Your task to perform on an android device: Search for vegetarian restaurants on Maps Image 0: 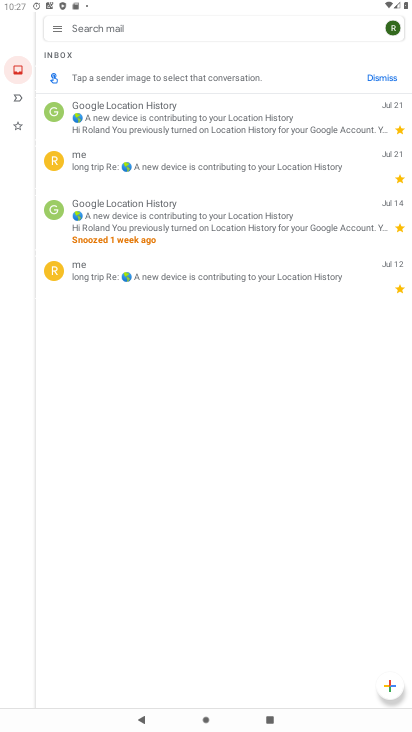
Step 0: drag from (179, 510) to (192, 337)
Your task to perform on an android device: Search for vegetarian restaurants on Maps Image 1: 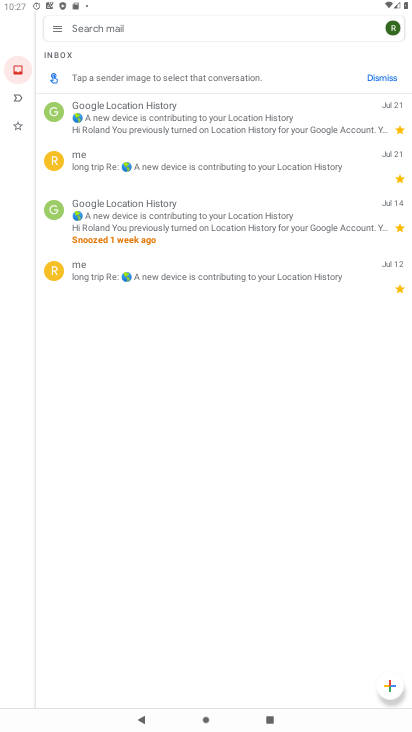
Step 1: press home button
Your task to perform on an android device: Search for vegetarian restaurants on Maps Image 2: 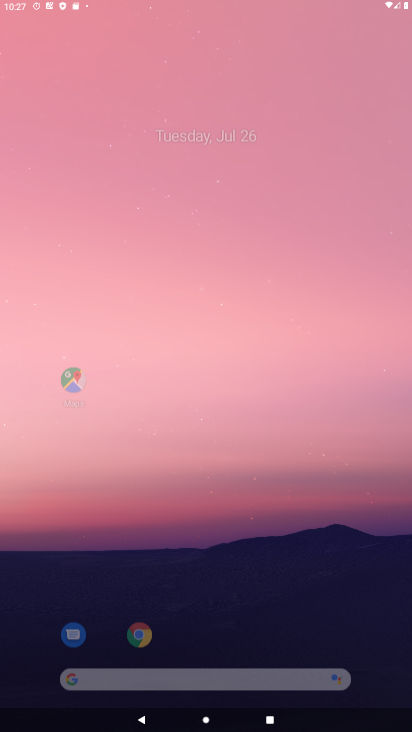
Step 2: drag from (220, 185) to (230, 54)
Your task to perform on an android device: Search for vegetarian restaurants on Maps Image 3: 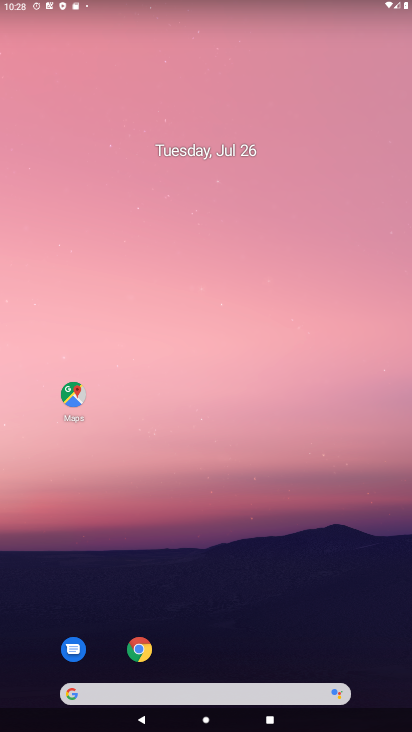
Step 3: click (71, 383)
Your task to perform on an android device: Search for vegetarian restaurants on Maps Image 4: 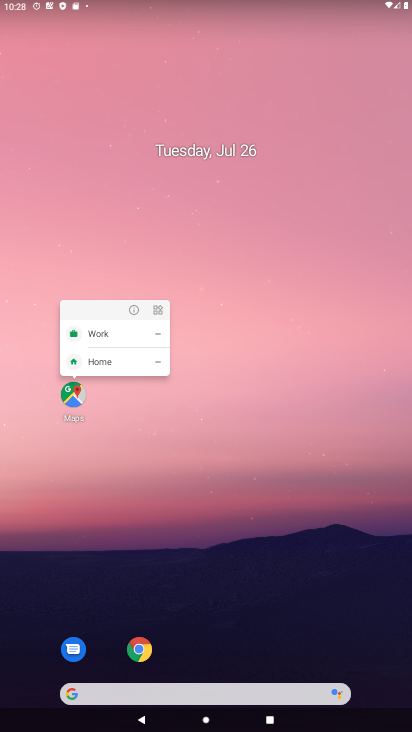
Step 4: click (133, 311)
Your task to perform on an android device: Search for vegetarian restaurants on Maps Image 5: 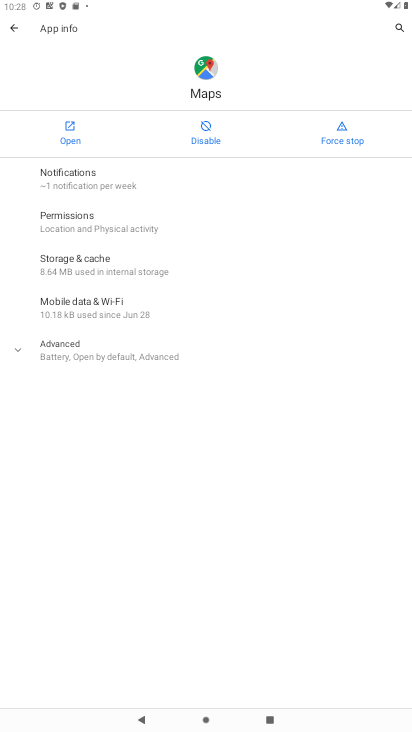
Step 5: click (64, 133)
Your task to perform on an android device: Search for vegetarian restaurants on Maps Image 6: 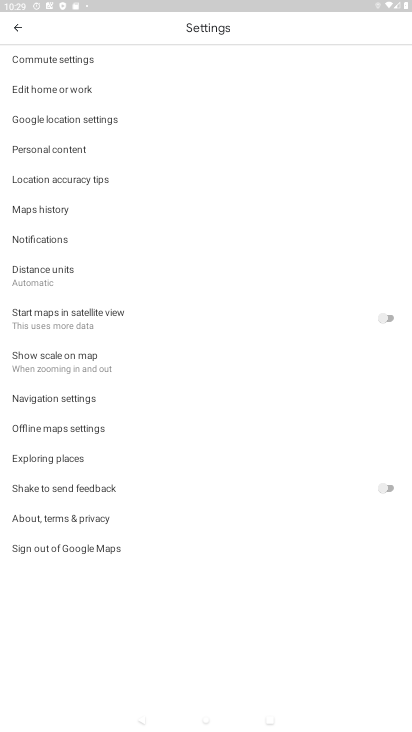
Step 6: press home button
Your task to perform on an android device: Search for vegetarian restaurants on Maps Image 7: 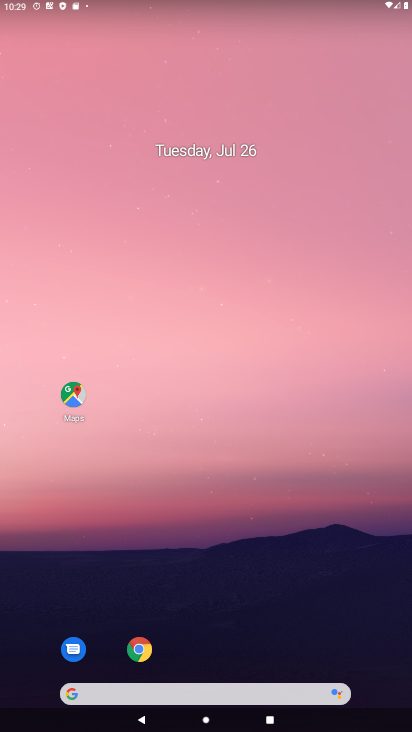
Step 7: drag from (199, 656) to (249, 300)
Your task to perform on an android device: Search for vegetarian restaurants on Maps Image 8: 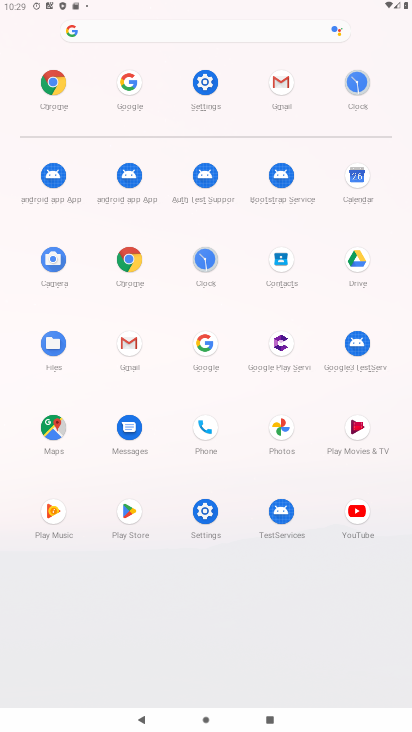
Step 8: click (46, 433)
Your task to perform on an android device: Search for vegetarian restaurants on Maps Image 9: 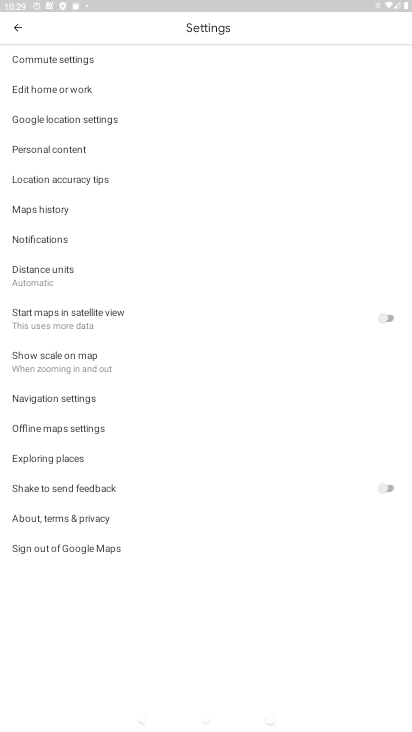
Step 9: drag from (193, 544) to (209, 307)
Your task to perform on an android device: Search for vegetarian restaurants on Maps Image 10: 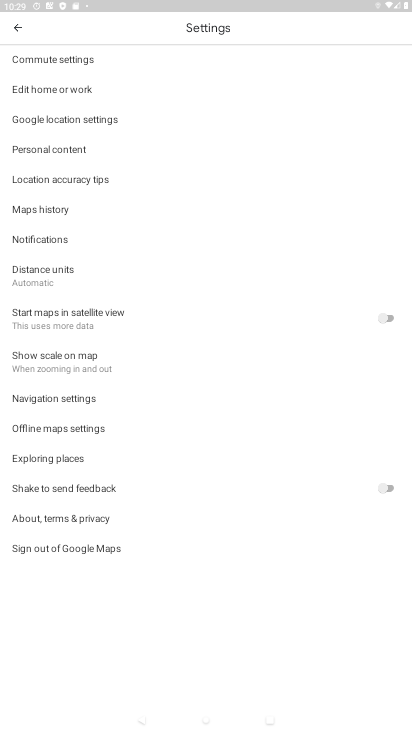
Step 10: drag from (156, 98) to (156, 528)
Your task to perform on an android device: Search for vegetarian restaurants on Maps Image 11: 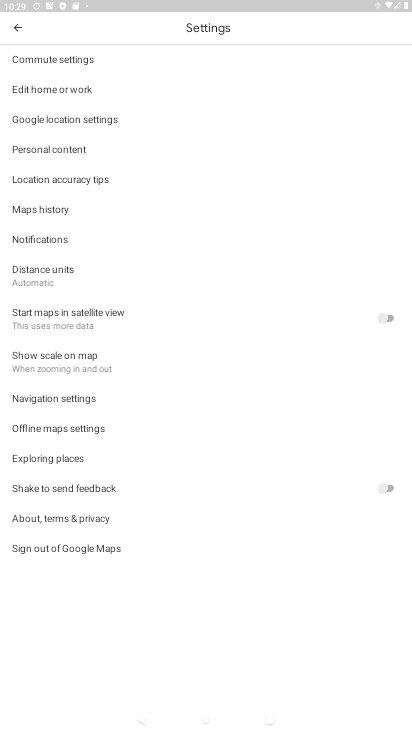
Step 11: drag from (188, 583) to (204, 260)
Your task to perform on an android device: Search for vegetarian restaurants on Maps Image 12: 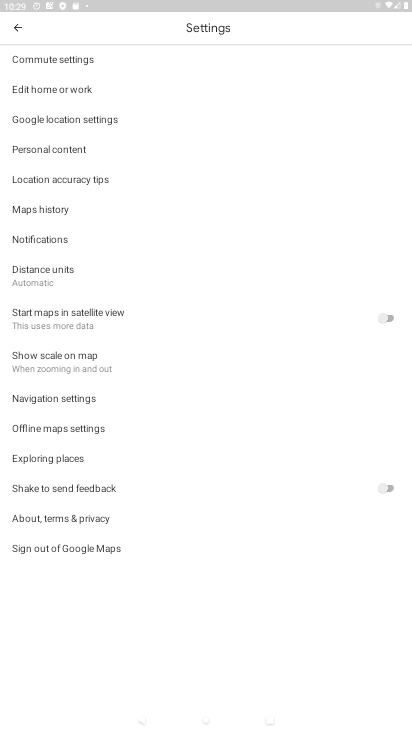
Step 12: drag from (166, 636) to (135, 302)
Your task to perform on an android device: Search for vegetarian restaurants on Maps Image 13: 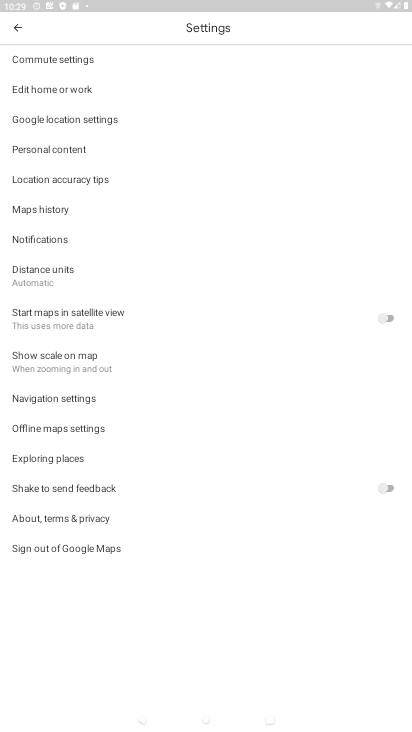
Step 13: press back button
Your task to perform on an android device: Search for vegetarian restaurants on Maps Image 14: 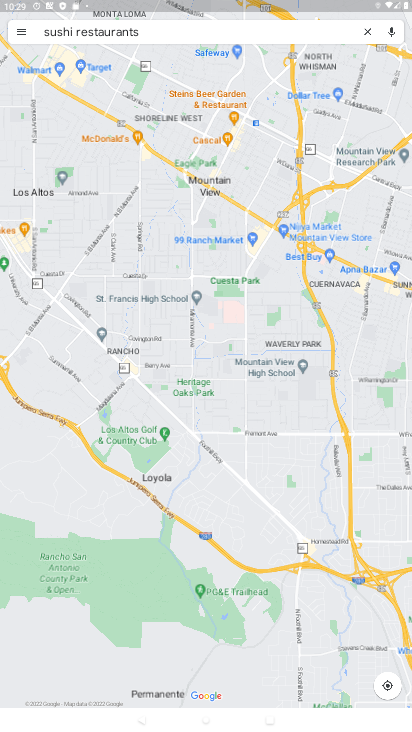
Step 14: click (366, 33)
Your task to perform on an android device: Search for vegetarian restaurants on Maps Image 15: 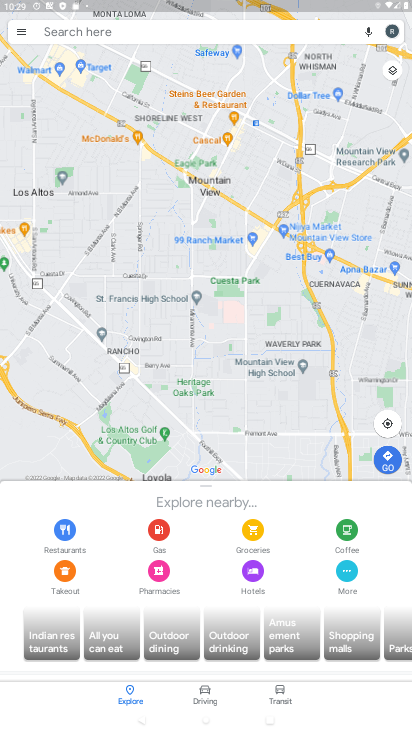
Step 15: click (97, 30)
Your task to perform on an android device: Search for vegetarian restaurants on Maps Image 16: 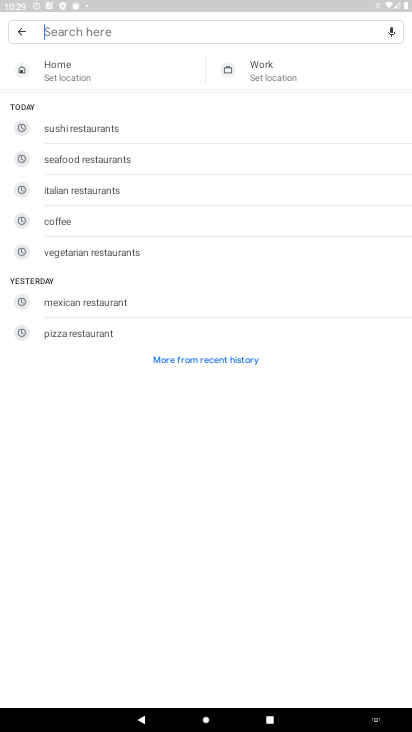
Step 16: click (65, 254)
Your task to perform on an android device: Search for vegetarian restaurants on Maps Image 17: 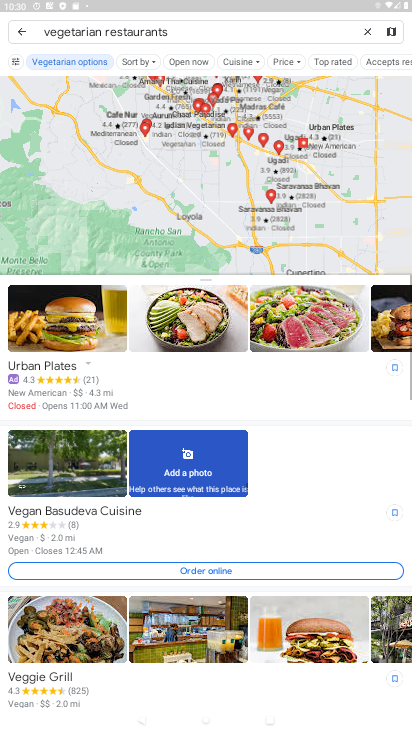
Step 17: task complete